Your task to perform on an android device: see creations saved in the google photos Image 0: 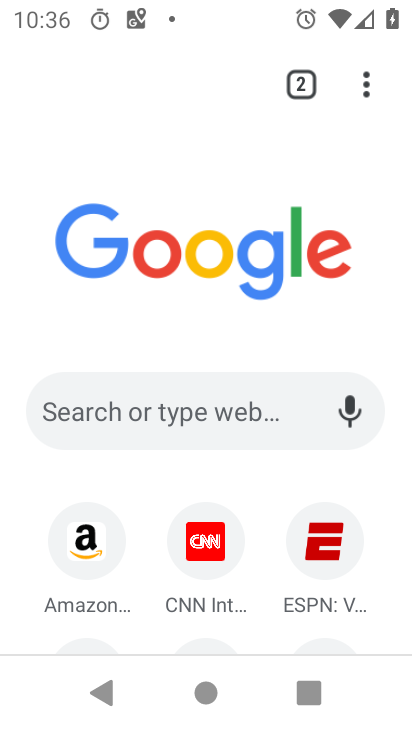
Step 0: press home button
Your task to perform on an android device: see creations saved in the google photos Image 1: 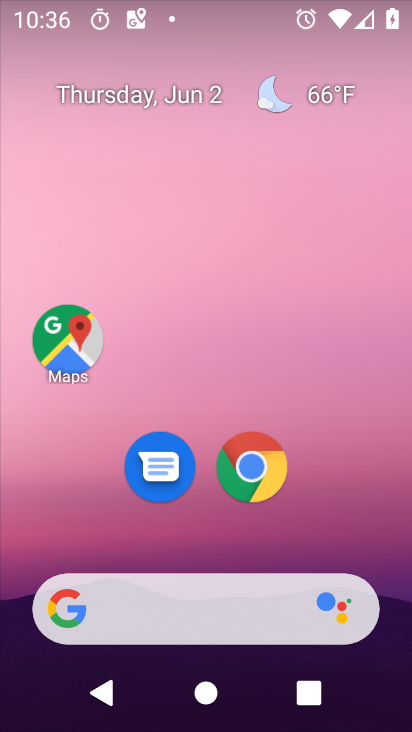
Step 1: drag from (66, 558) to (303, 163)
Your task to perform on an android device: see creations saved in the google photos Image 2: 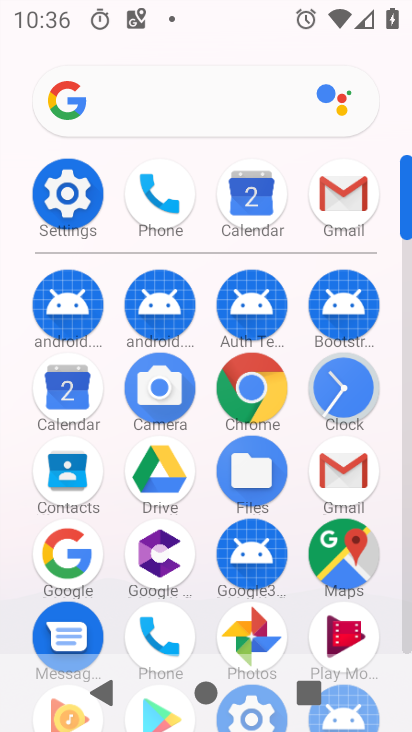
Step 2: click (233, 617)
Your task to perform on an android device: see creations saved in the google photos Image 3: 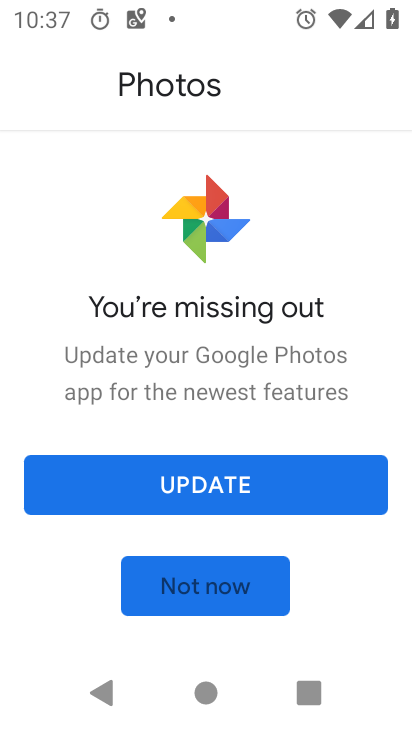
Step 3: click (235, 591)
Your task to perform on an android device: see creations saved in the google photos Image 4: 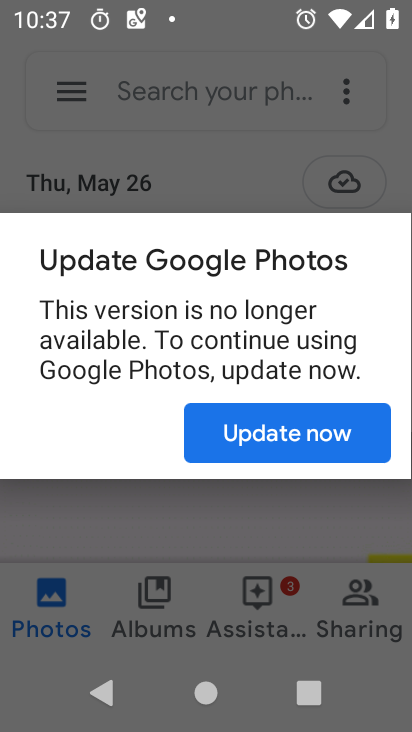
Step 4: click (258, 426)
Your task to perform on an android device: see creations saved in the google photos Image 5: 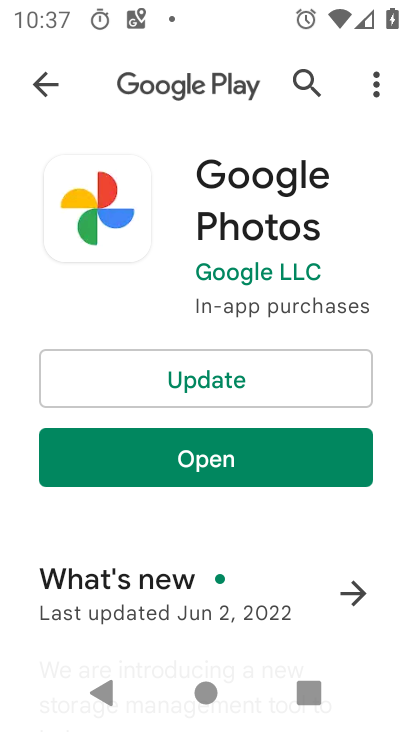
Step 5: click (196, 472)
Your task to perform on an android device: see creations saved in the google photos Image 6: 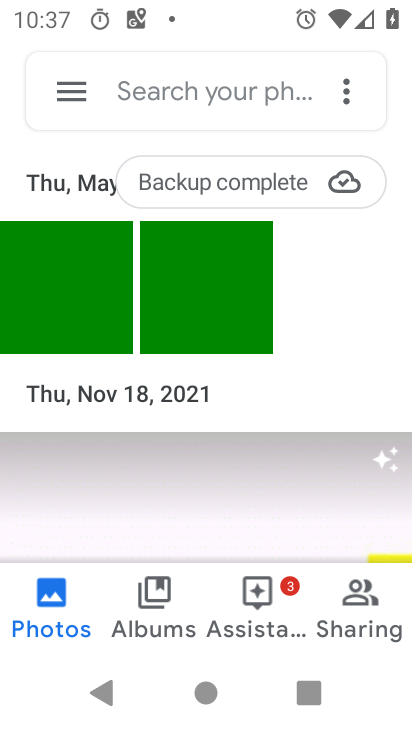
Step 6: click (163, 93)
Your task to perform on an android device: see creations saved in the google photos Image 7: 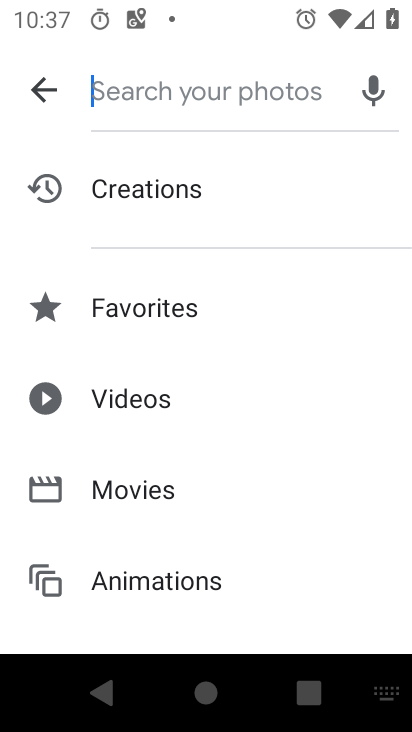
Step 7: drag from (21, 499) to (199, 169)
Your task to perform on an android device: see creations saved in the google photos Image 8: 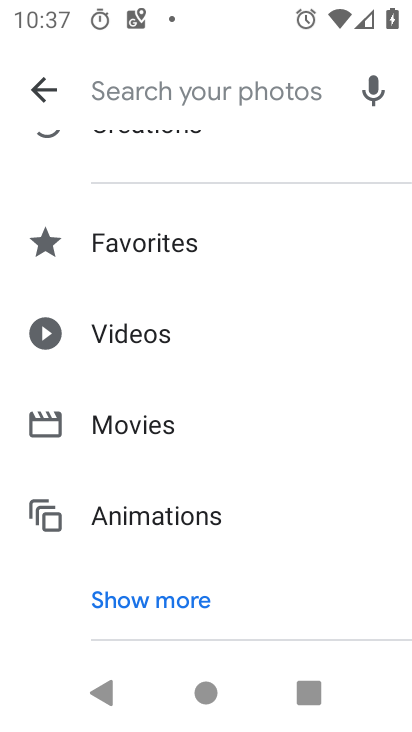
Step 8: drag from (201, 155) to (150, 582)
Your task to perform on an android device: see creations saved in the google photos Image 9: 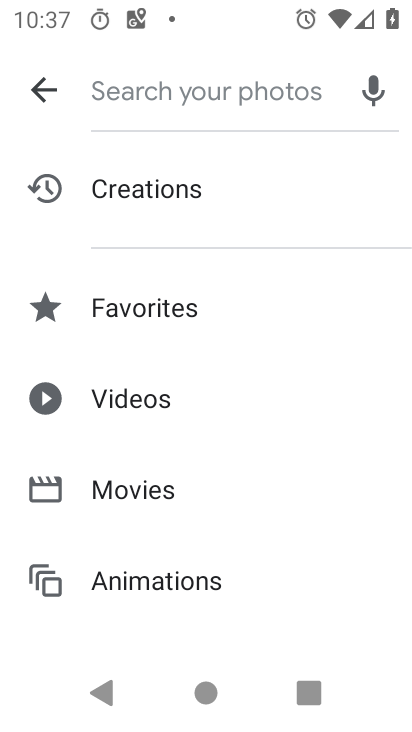
Step 9: click (93, 221)
Your task to perform on an android device: see creations saved in the google photos Image 10: 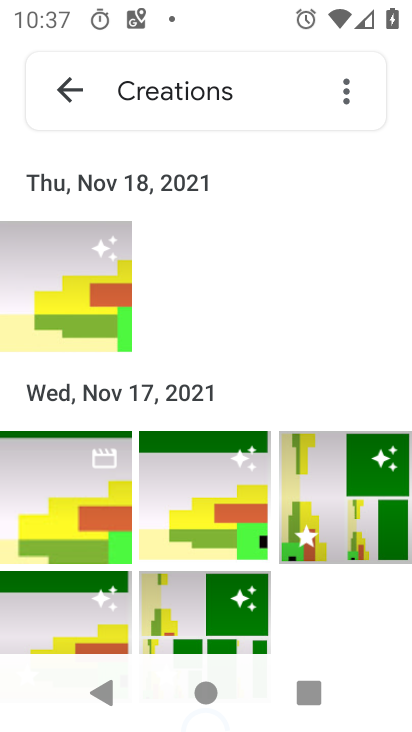
Step 10: task complete